Your task to perform on an android device: install app "The Home Depot" Image 0: 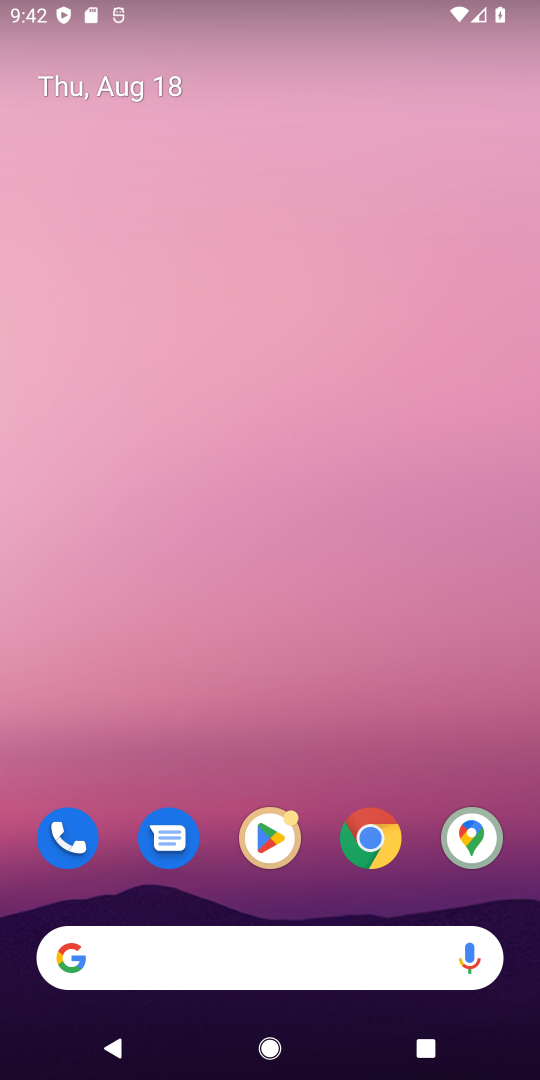
Step 0: click (280, 833)
Your task to perform on an android device: install app "The Home Depot" Image 1: 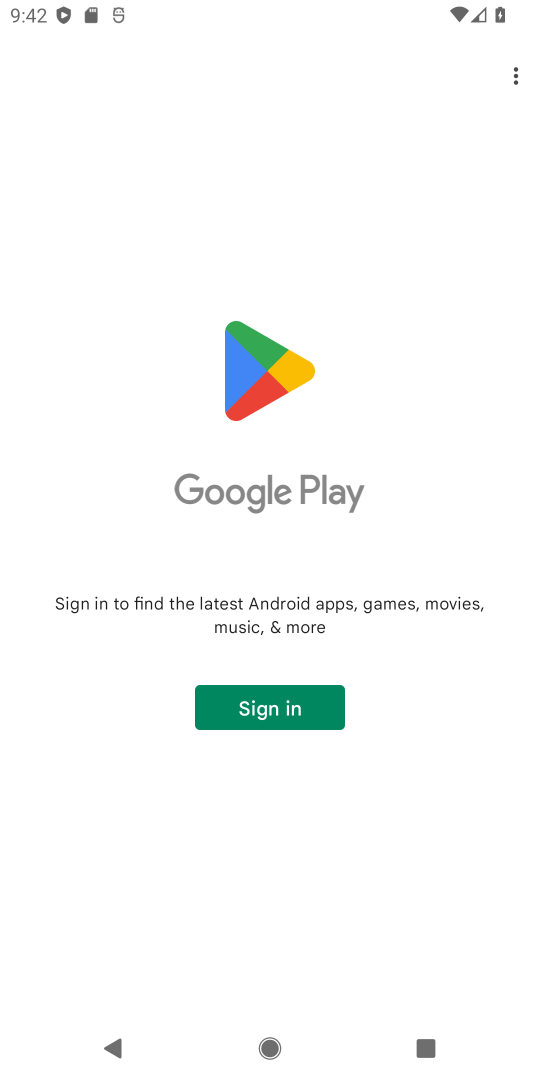
Step 1: task complete